Your task to perform on an android device: open sync settings in chrome Image 0: 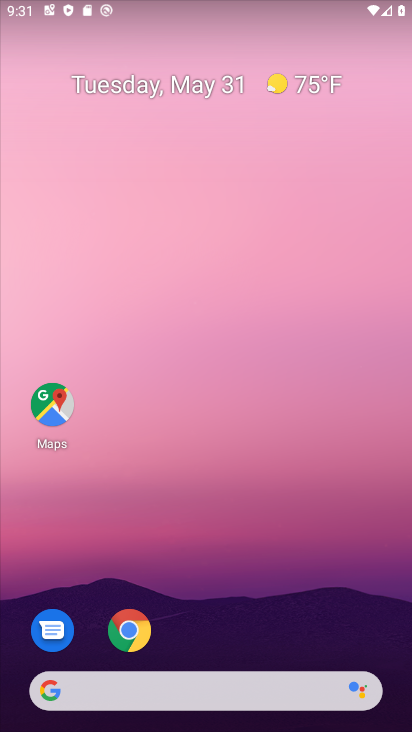
Step 0: drag from (221, 591) to (247, 171)
Your task to perform on an android device: open sync settings in chrome Image 1: 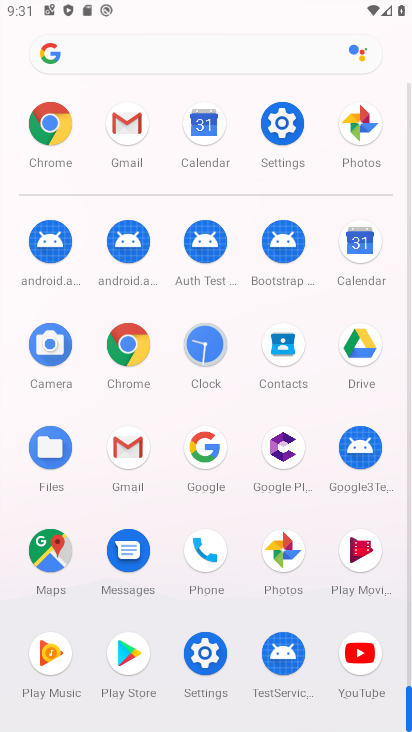
Step 1: click (133, 367)
Your task to perform on an android device: open sync settings in chrome Image 2: 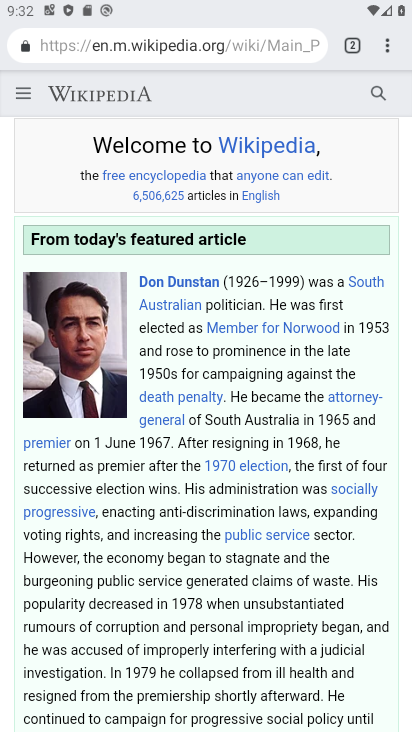
Step 2: click (393, 54)
Your task to perform on an android device: open sync settings in chrome Image 3: 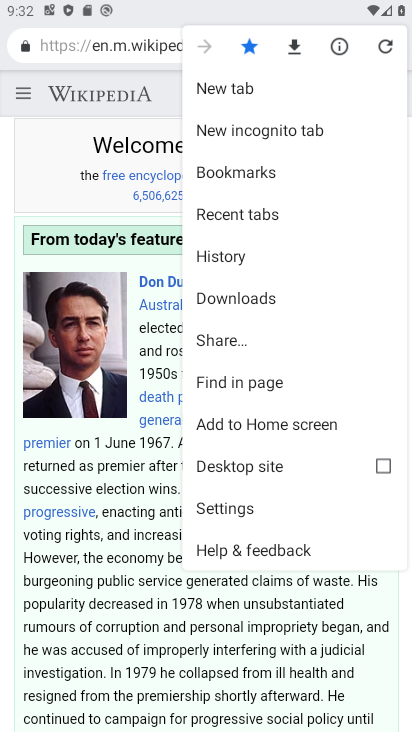
Step 3: click (229, 512)
Your task to perform on an android device: open sync settings in chrome Image 4: 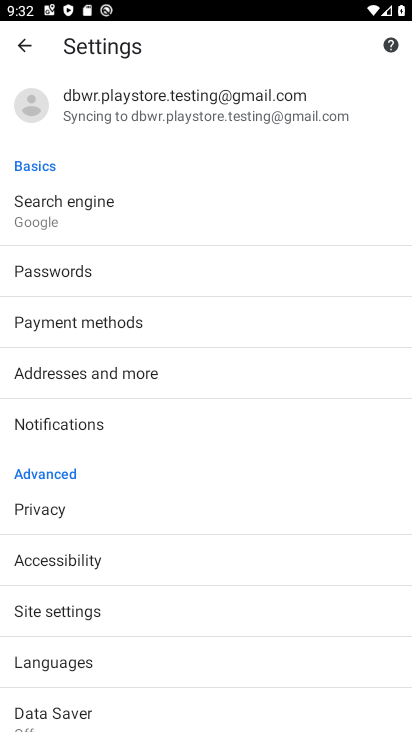
Step 4: drag from (147, 542) to (178, 405)
Your task to perform on an android device: open sync settings in chrome Image 5: 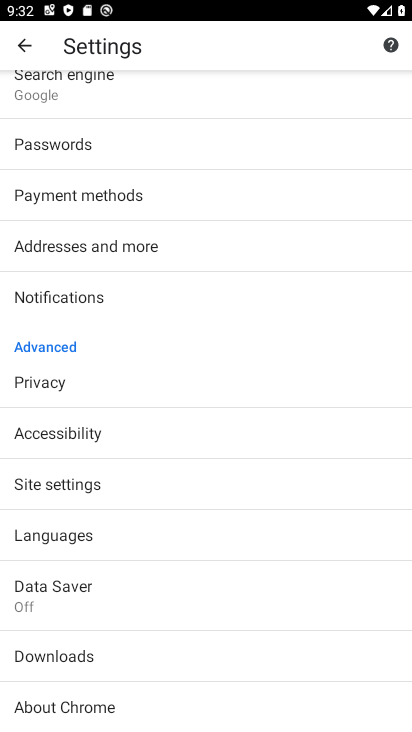
Step 5: drag from (78, 283) to (67, 638)
Your task to perform on an android device: open sync settings in chrome Image 6: 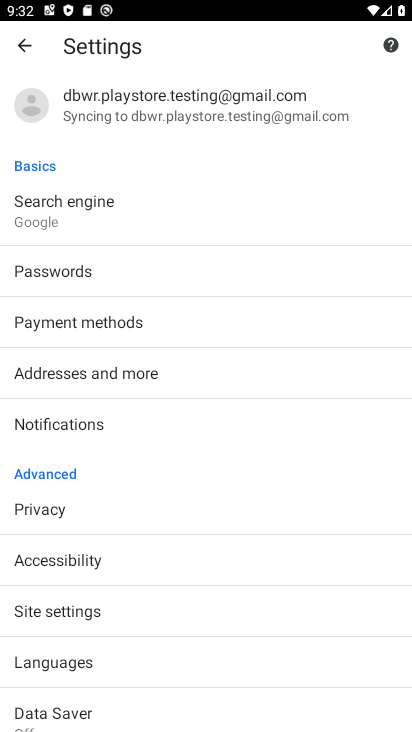
Step 6: click (203, 117)
Your task to perform on an android device: open sync settings in chrome Image 7: 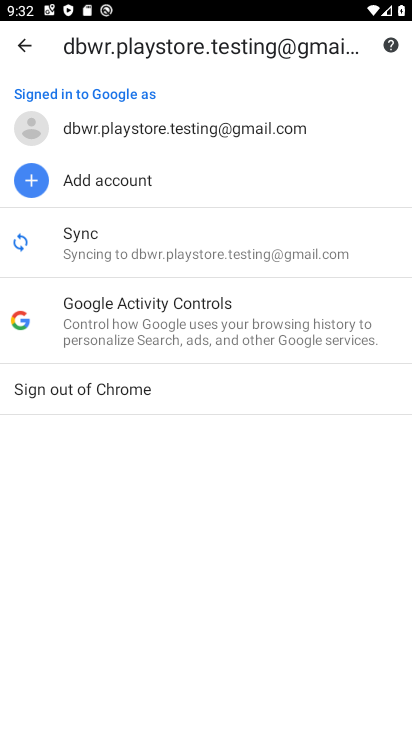
Step 7: click (131, 255)
Your task to perform on an android device: open sync settings in chrome Image 8: 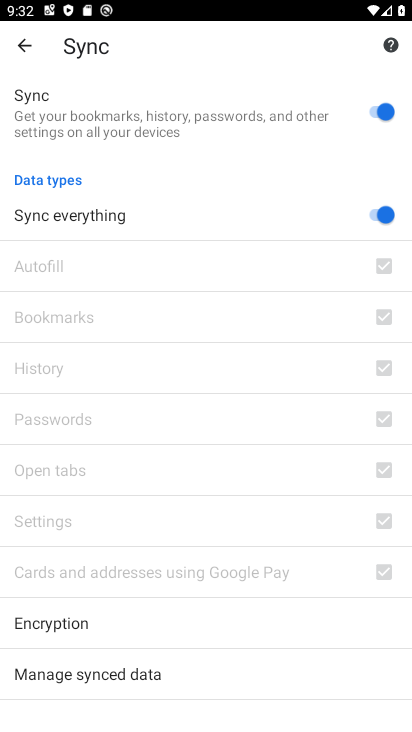
Step 8: task complete